Your task to perform on an android device: see tabs open on other devices in the chrome app Image 0: 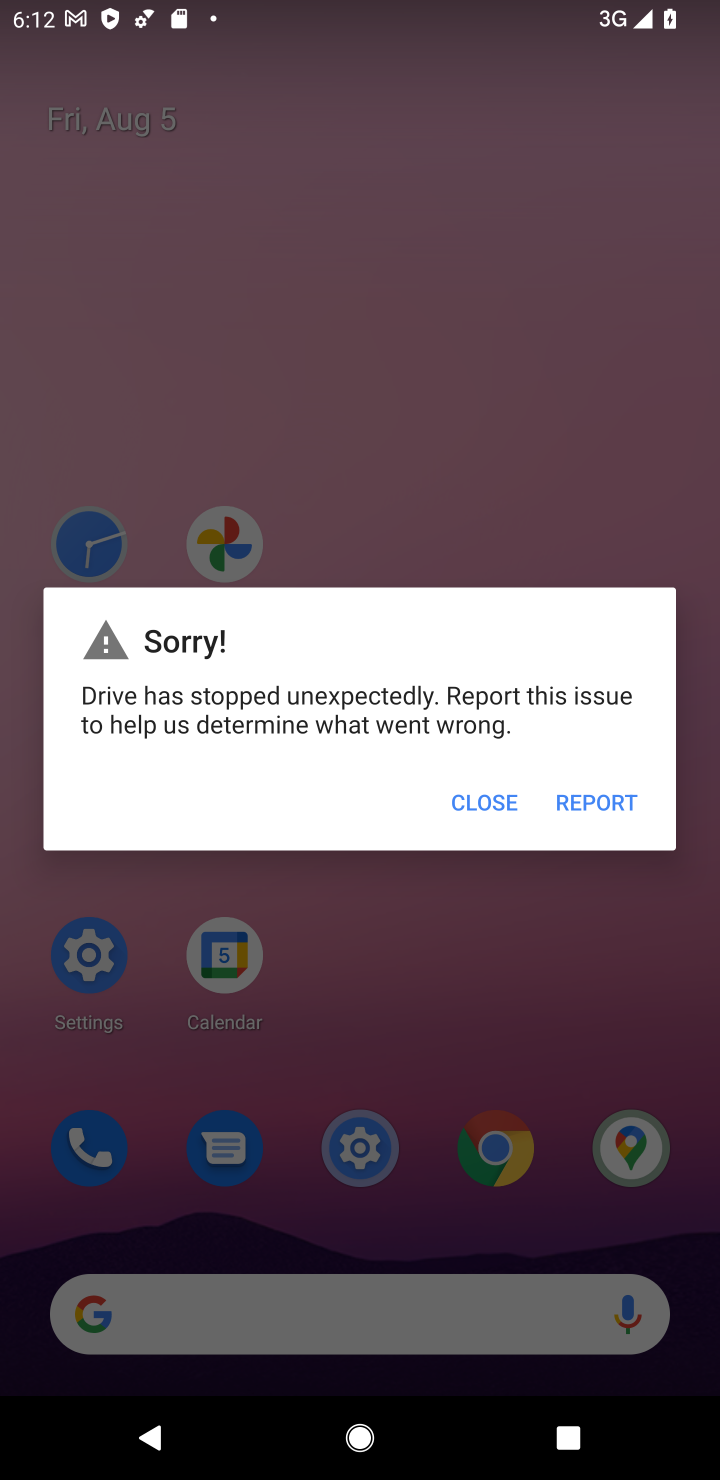
Step 0: click (543, 1046)
Your task to perform on an android device: see tabs open on other devices in the chrome app Image 1: 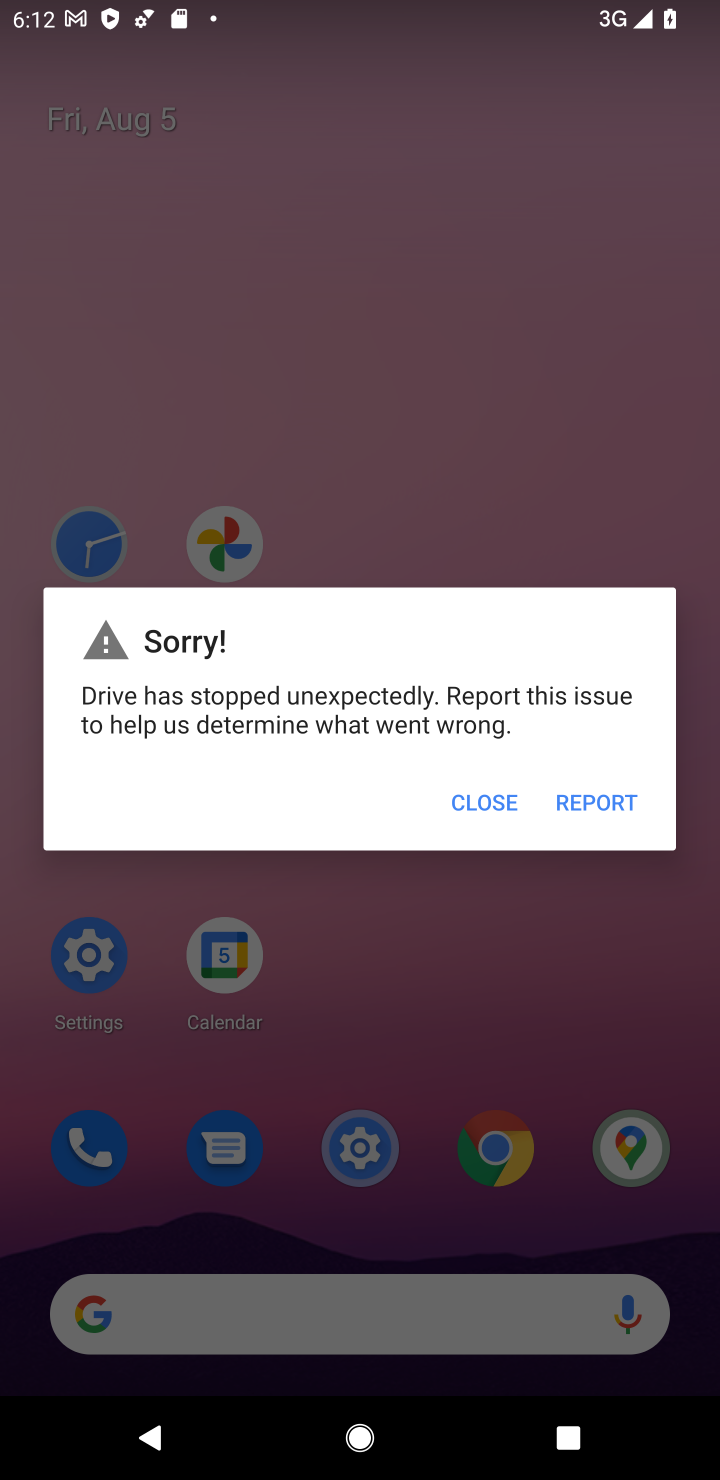
Step 1: press home button
Your task to perform on an android device: see tabs open on other devices in the chrome app Image 2: 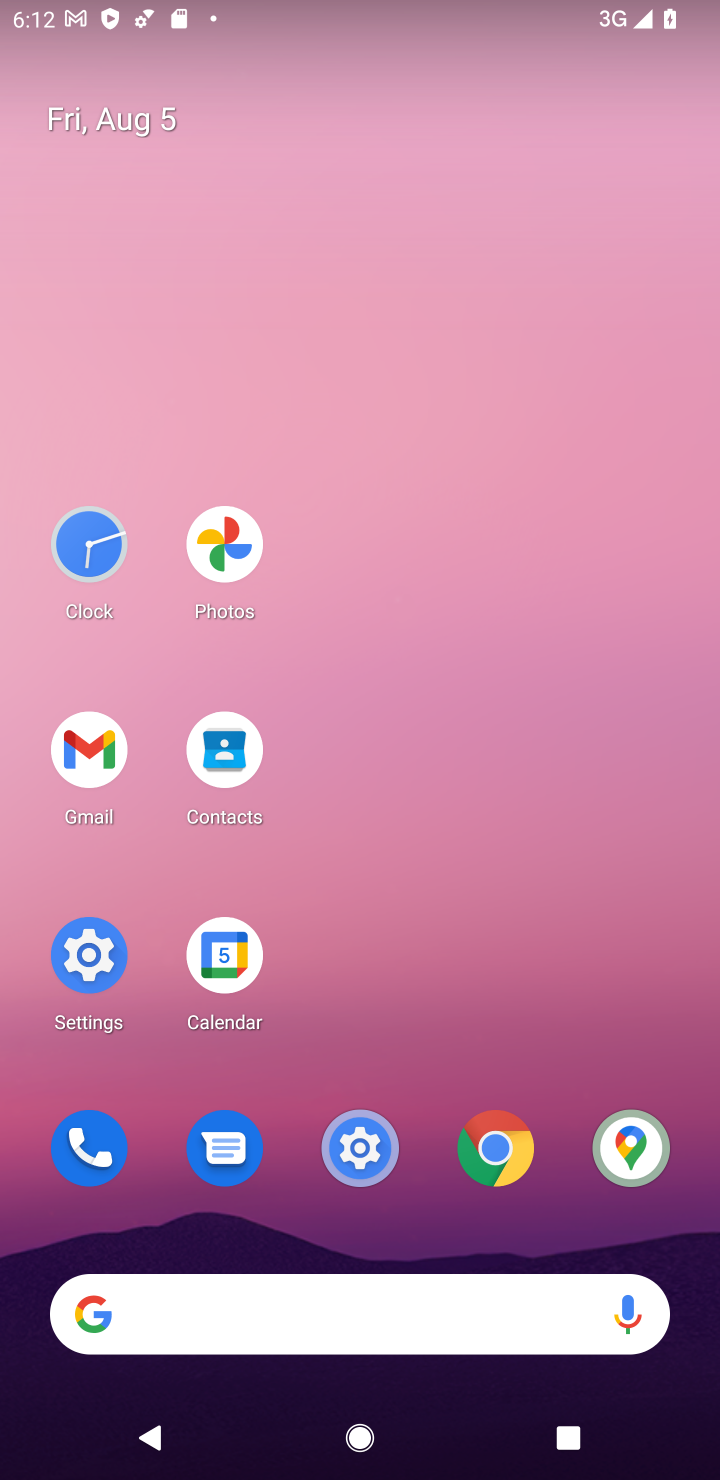
Step 2: click (496, 1147)
Your task to perform on an android device: see tabs open on other devices in the chrome app Image 3: 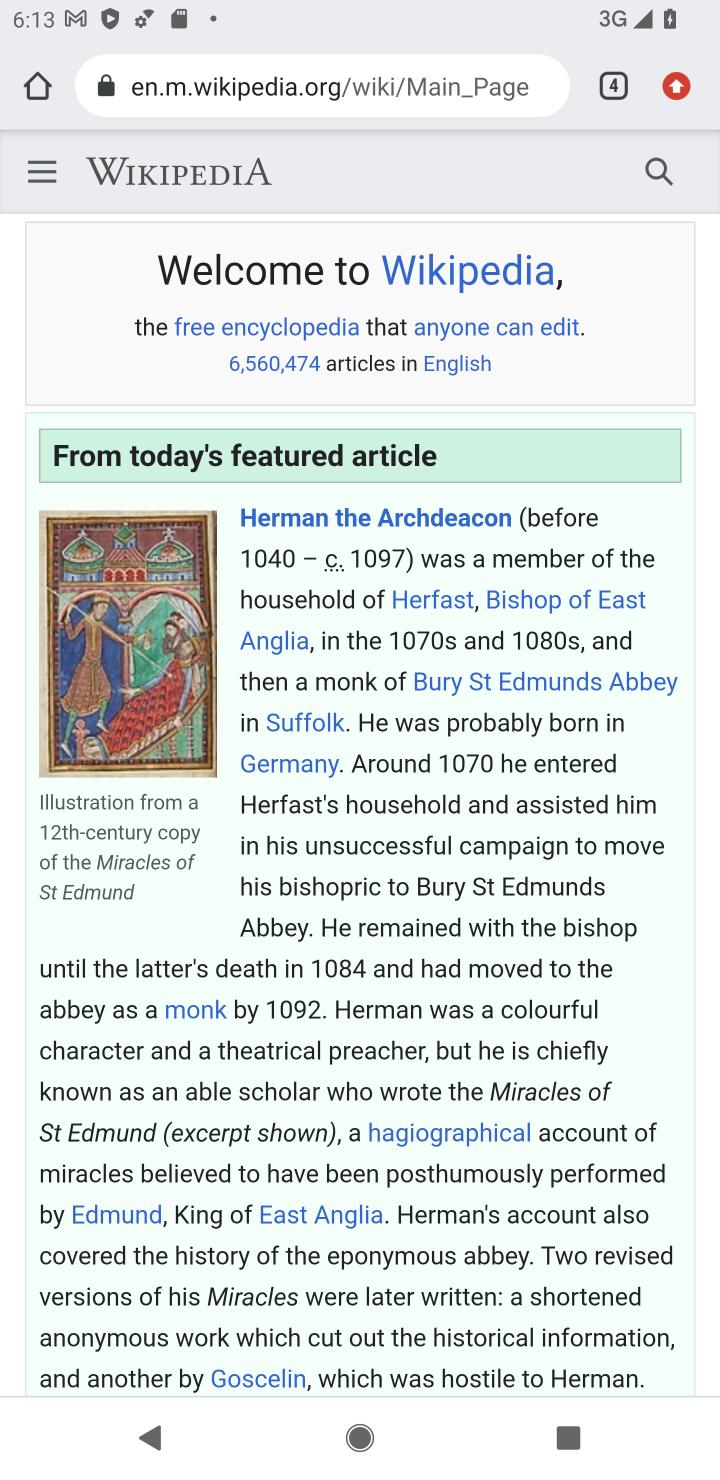
Step 3: click (678, 78)
Your task to perform on an android device: see tabs open on other devices in the chrome app Image 4: 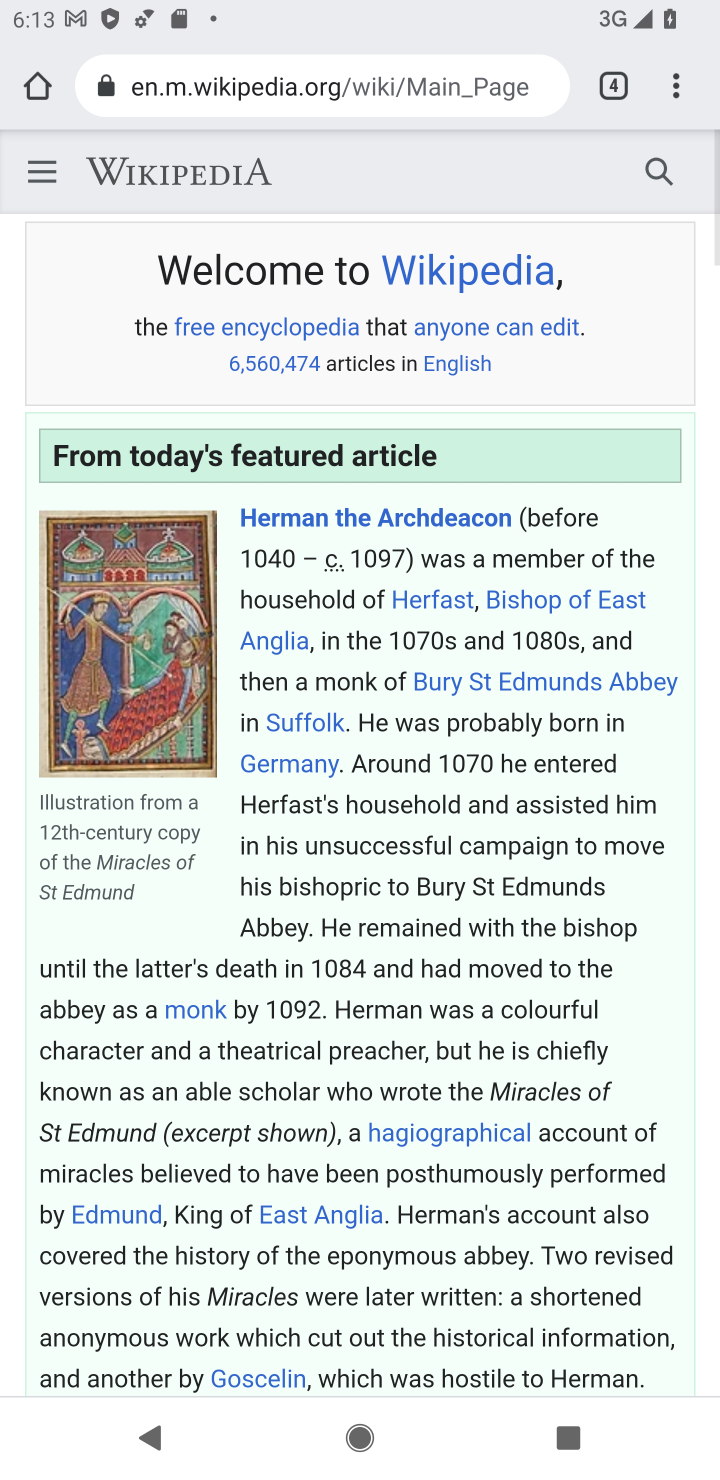
Step 4: click (681, 93)
Your task to perform on an android device: see tabs open on other devices in the chrome app Image 5: 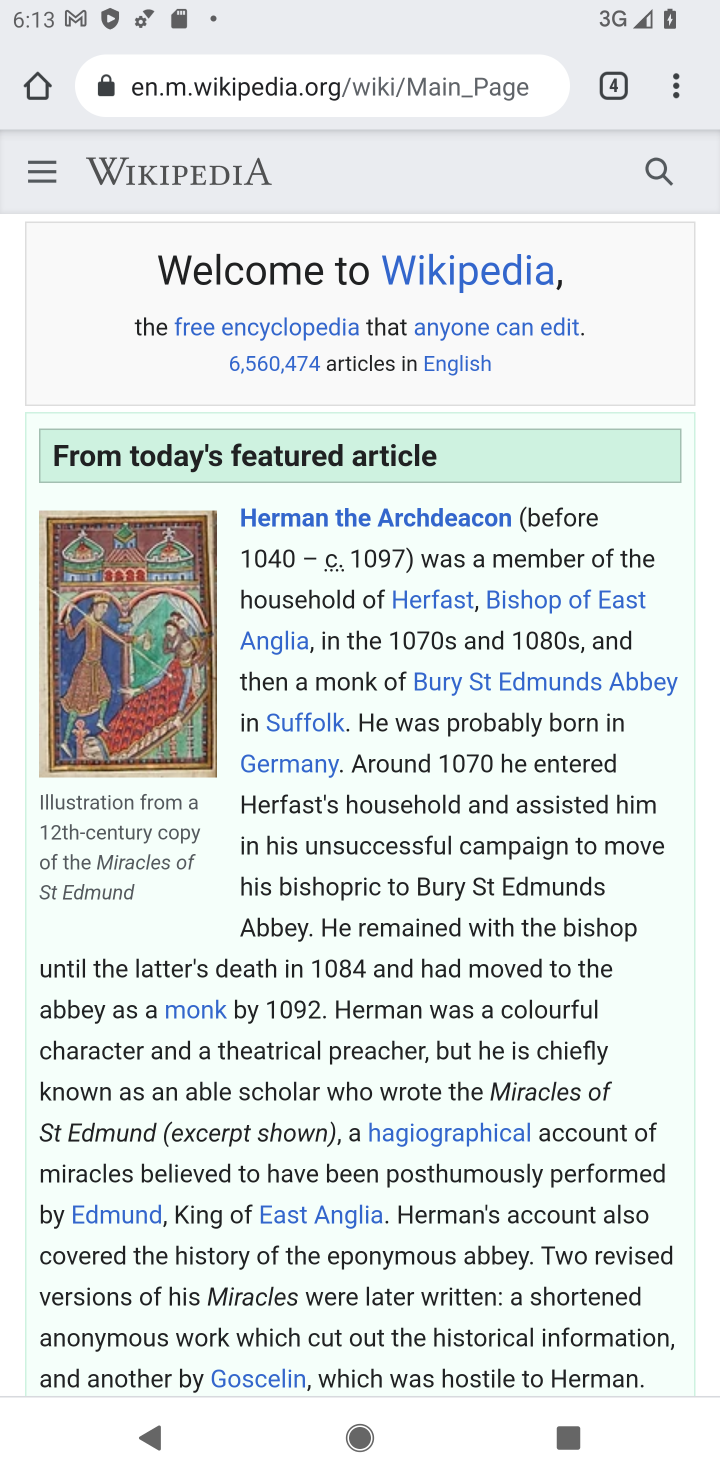
Step 5: click (676, 80)
Your task to perform on an android device: see tabs open on other devices in the chrome app Image 6: 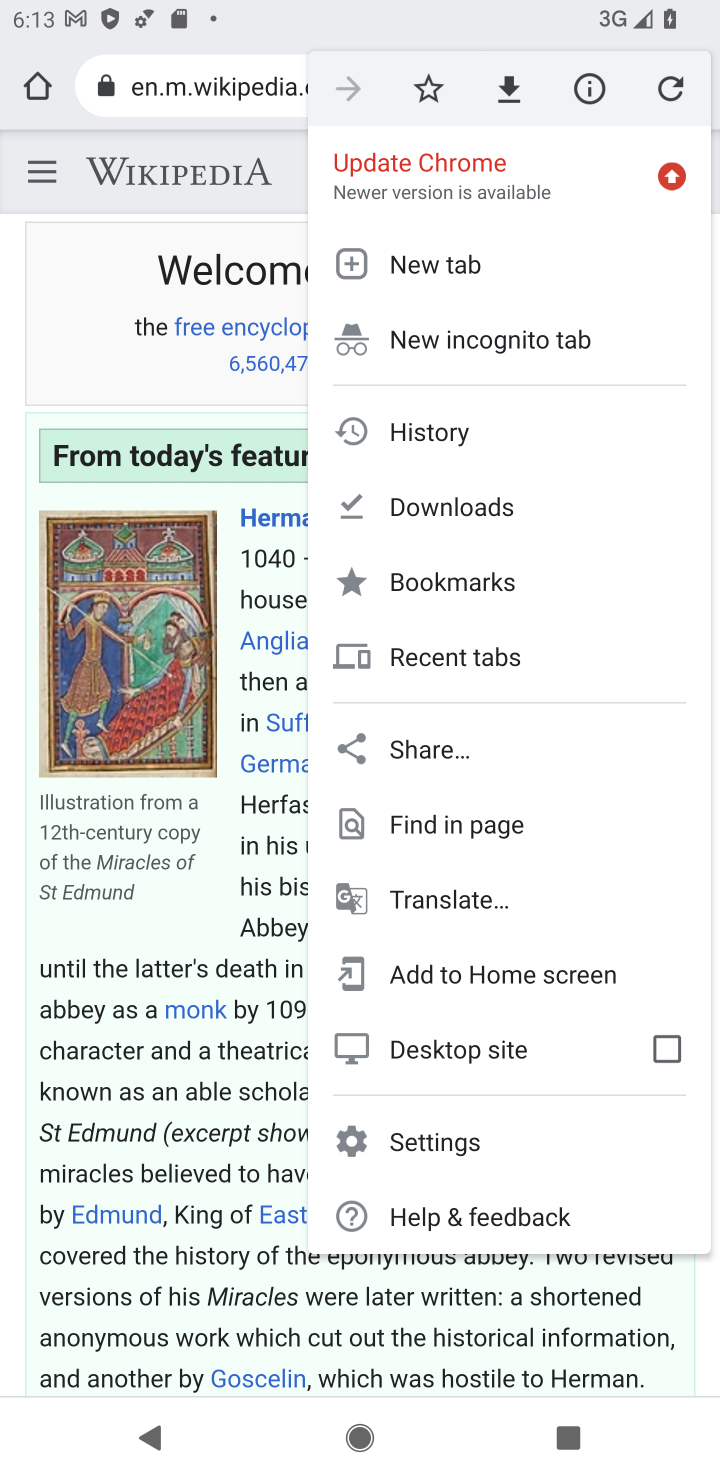
Step 6: click (457, 647)
Your task to perform on an android device: see tabs open on other devices in the chrome app Image 7: 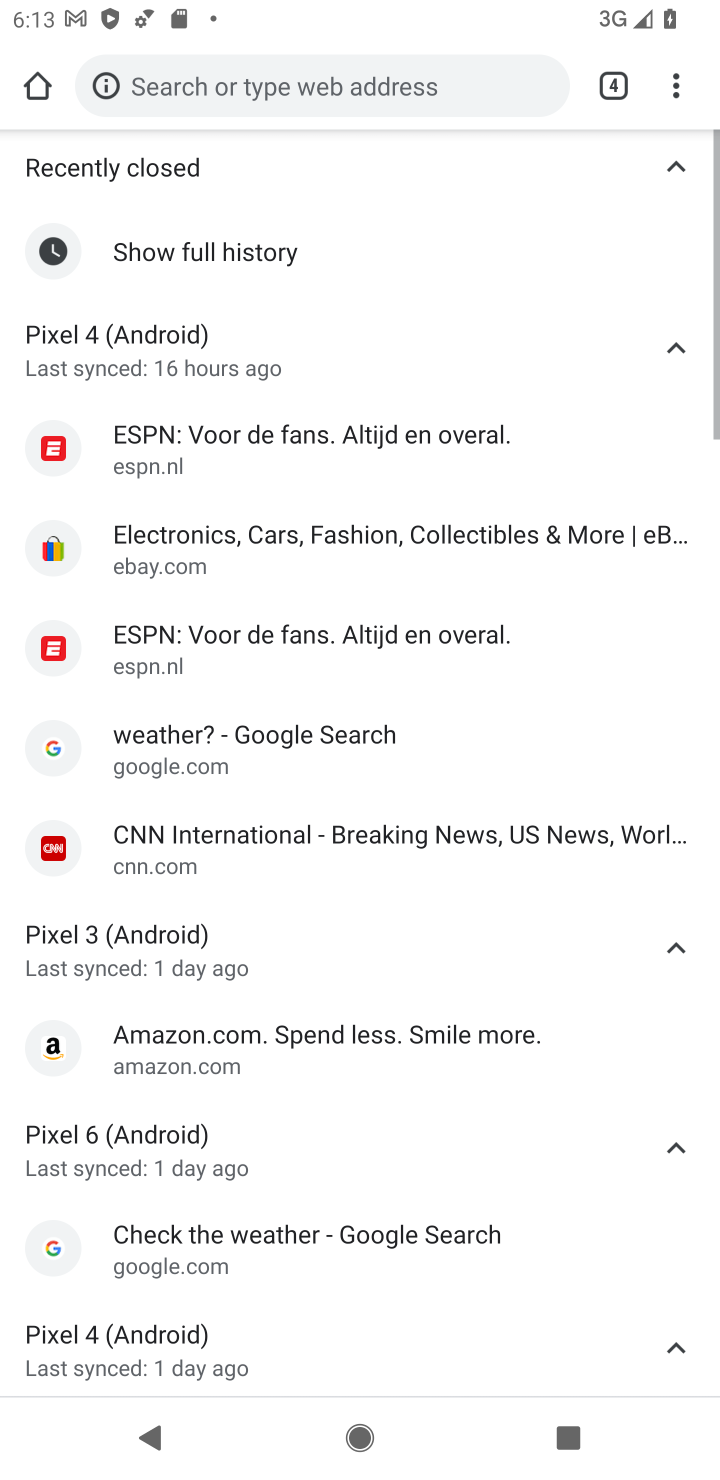
Step 7: task complete